Your task to perform on an android device: change notifications settings Image 0: 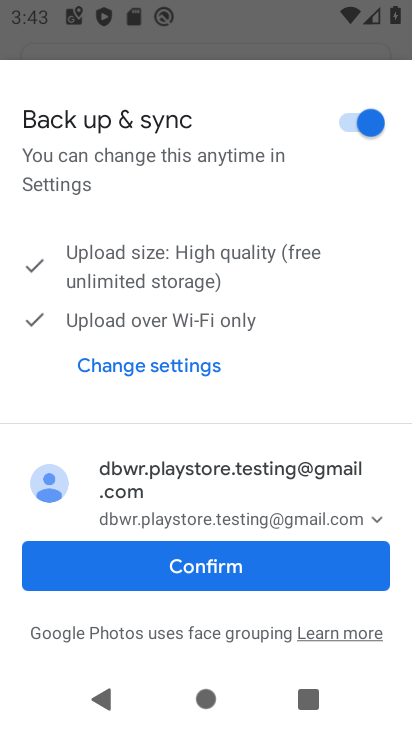
Step 0: press home button
Your task to perform on an android device: change notifications settings Image 1: 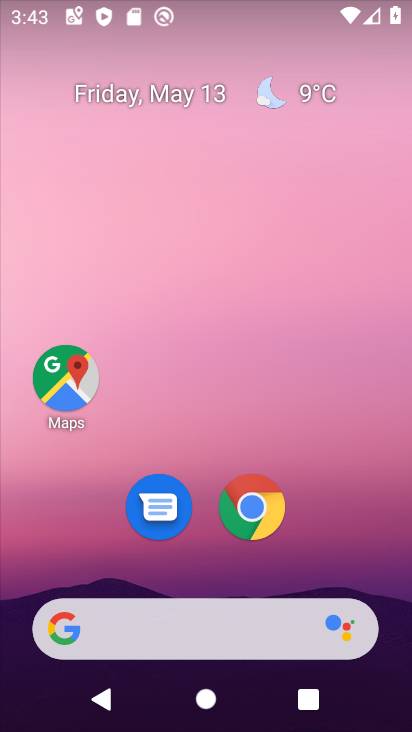
Step 1: drag from (318, 458) to (207, 30)
Your task to perform on an android device: change notifications settings Image 2: 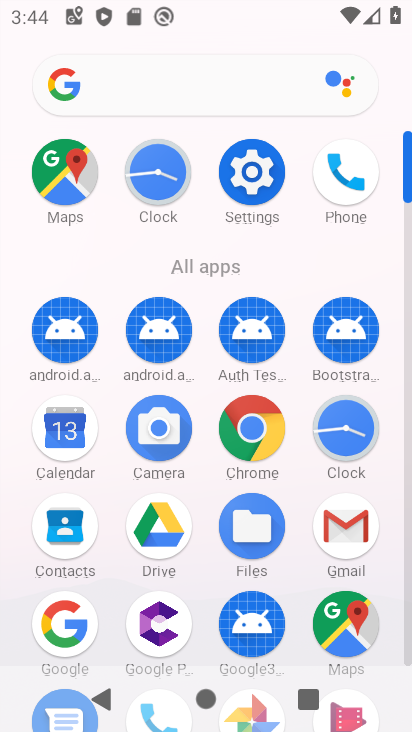
Step 2: click (248, 167)
Your task to perform on an android device: change notifications settings Image 3: 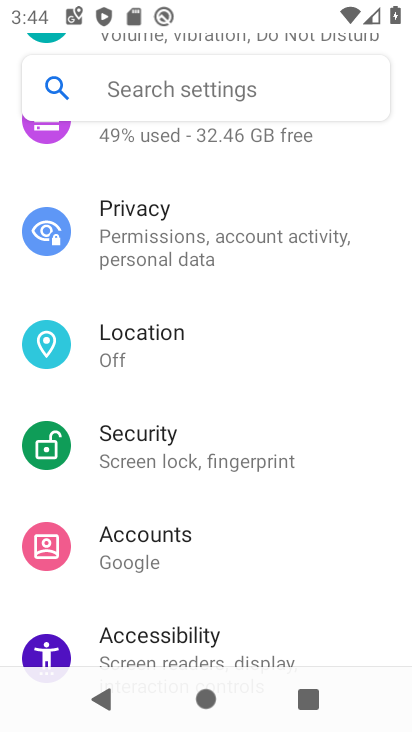
Step 3: drag from (228, 198) to (239, 574)
Your task to perform on an android device: change notifications settings Image 4: 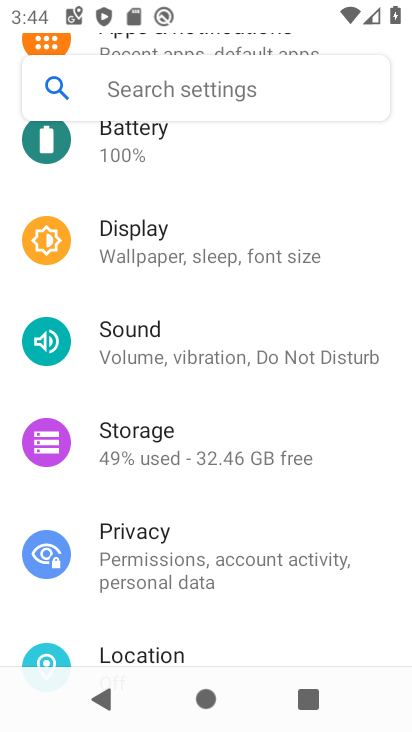
Step 4: drag from (254, 240) to (253, 601)
Your task to perform on an android device: change notifications settings Image 5: 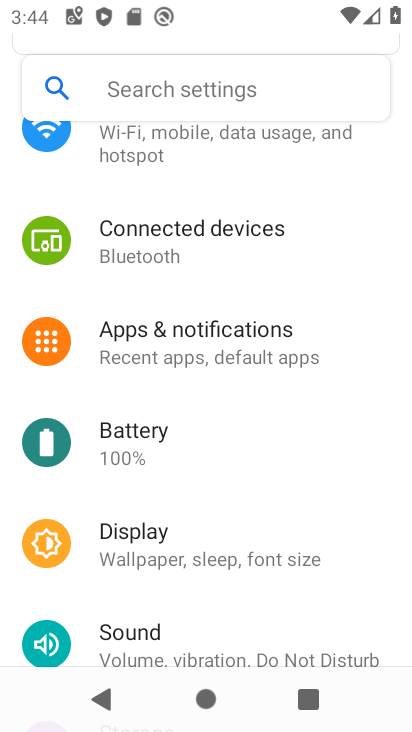
Step 5: click (233, 334)
Your task to perform on an android device: change notifications settings Image 6: 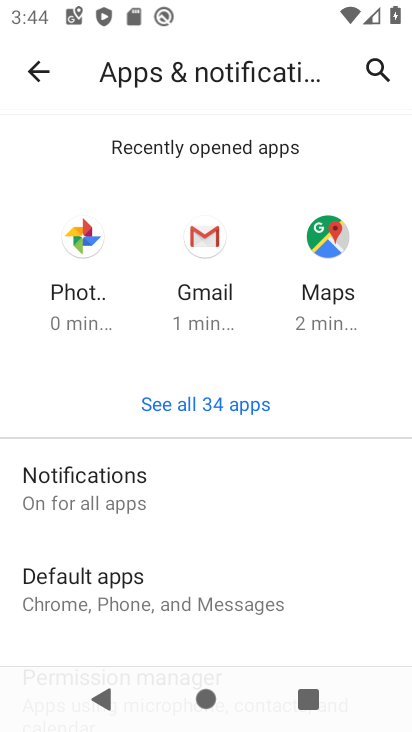
Step 6: click (105, 505)
Your task to perform on an android device: change notifications settings Image 7: 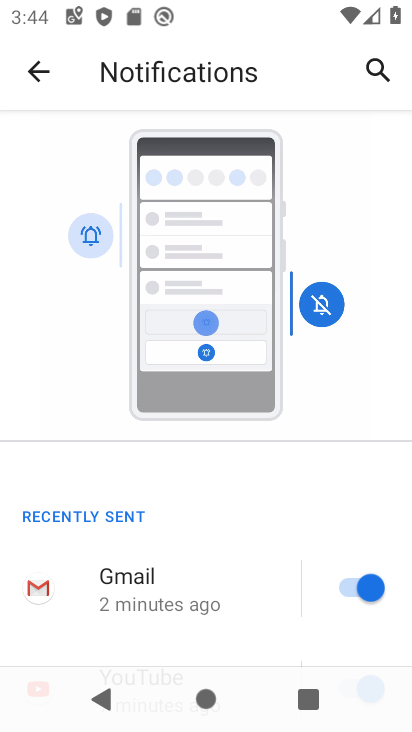
Step 7: drag from (107, 572) to (87, 252)
Your task to perform on an android device: change notifications settings Image 8: 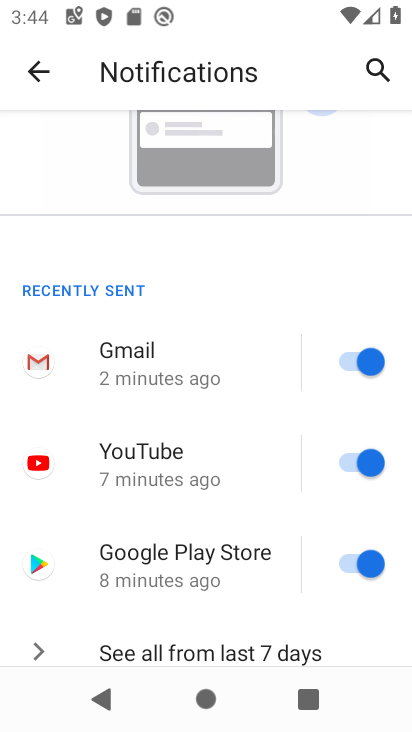
Step 8: drag from (165, 566) to (133, 242)
Your task to perform on an android device: change notifications settings Image 9: 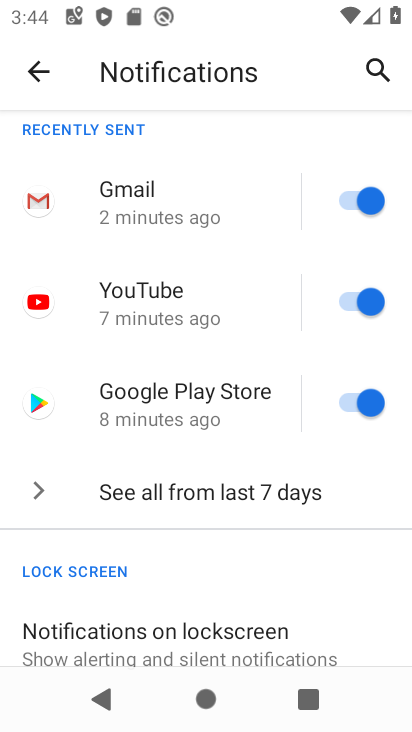
Step 9: drag from (173, 597) to (150, 270)
Your task to perform on an android device: change notifications settings Image 10: 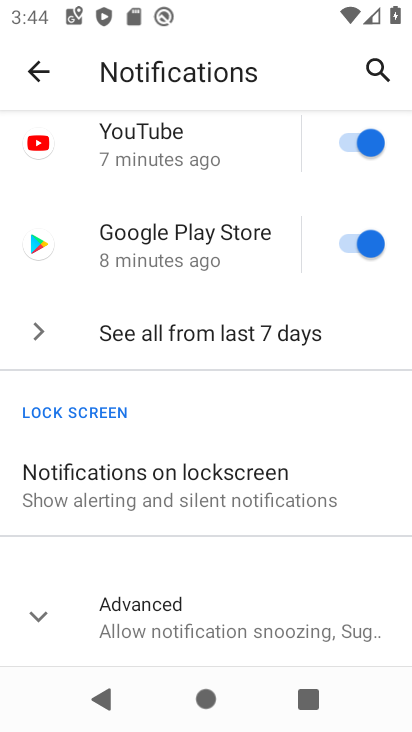
Step 10: drag from (150, 270) to (190, 602)
Your task to perform on an android device: change notifications settings Image 11: 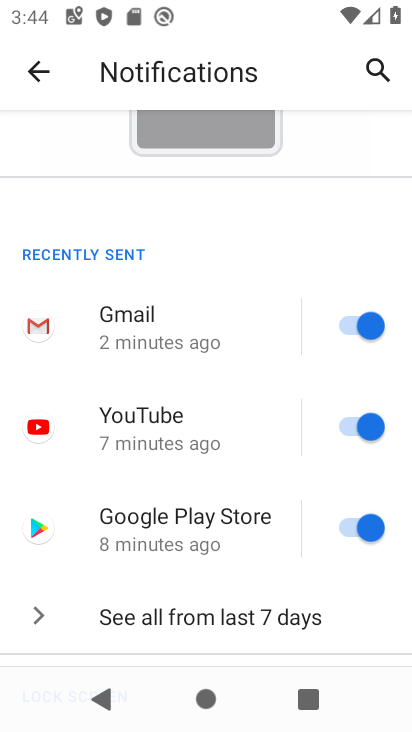
Step 11: drag from (163, 348) to (206, 607)
Your task to perform on an android device: change notifications settings Image 12: 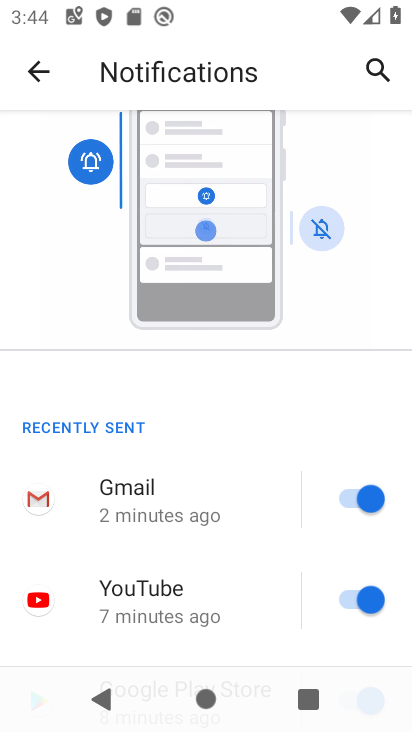
Step 12: drag from (206, 608) to (162, 320)
Your task to perform on an android device: change notifications settings Image 13: 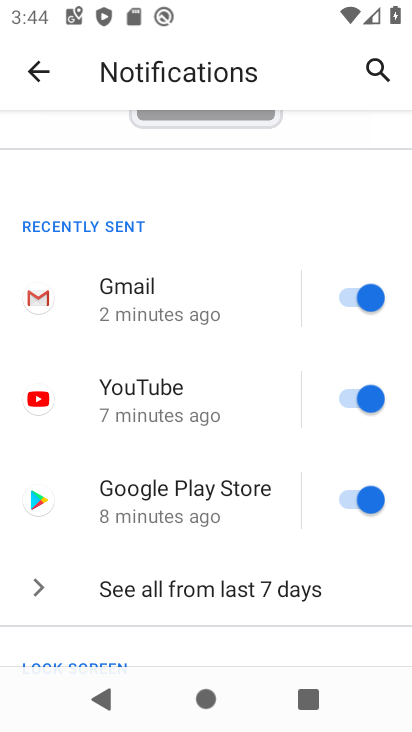
Step 13: click (344, 289)
Your task to perform on an android device: change notifications settings Image 14: 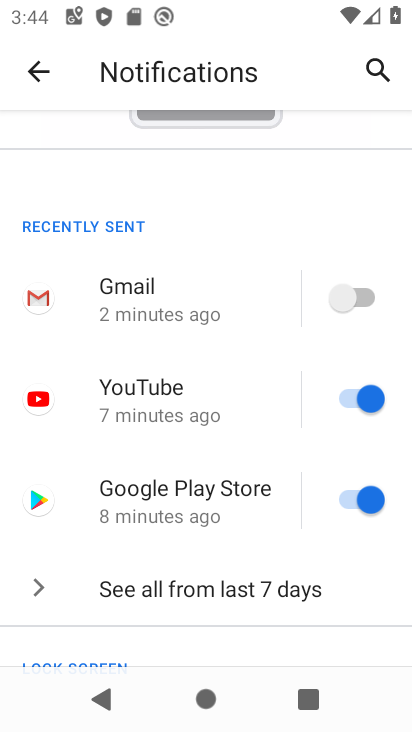
Step 14: task complete